Your task to perform on an android device: Check the news Image 0: 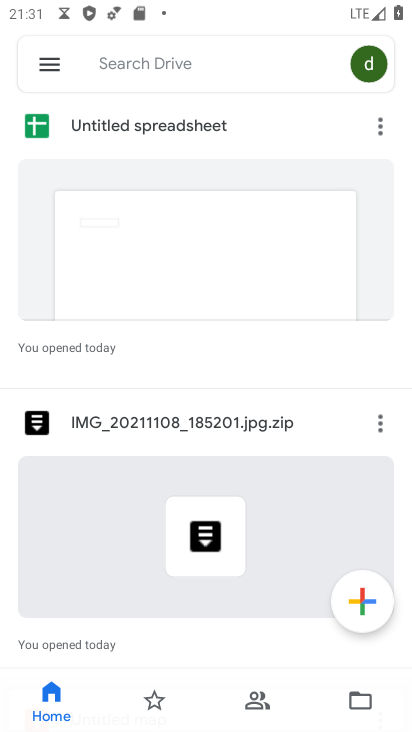
Step 0: press home button
Your task to perform on an android device: Check the news Image 1: 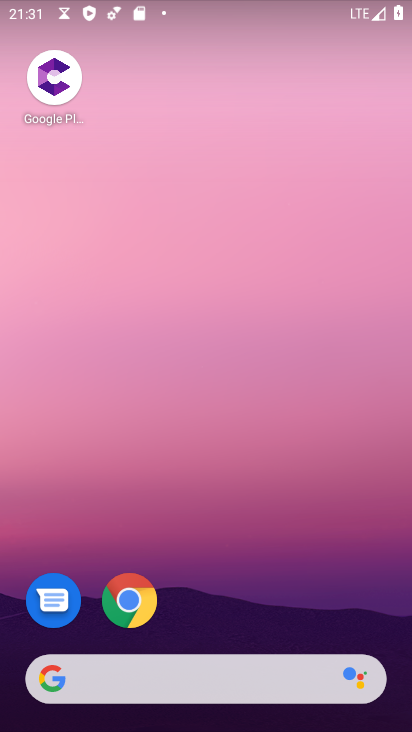
Step 1: click (129, 608)
Your task to perform on an android device: Check the news Image 2: 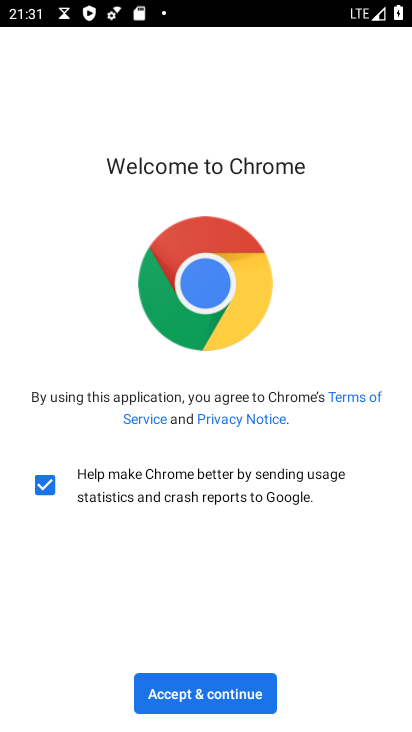
Step 2: click (181, 691)
Your task to perform on an android device: Check the news Image 3: 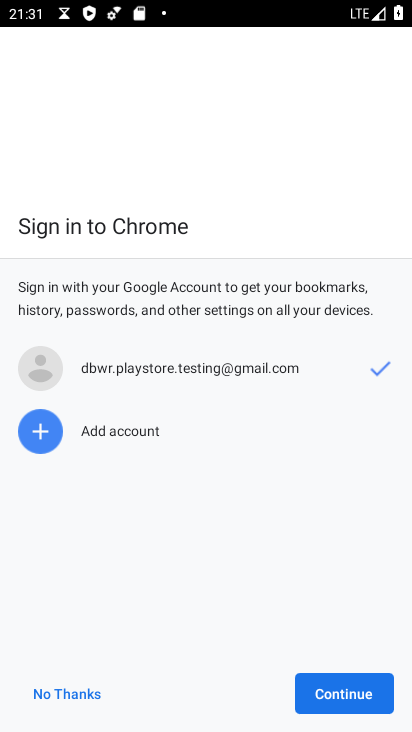
Step 3: click (342, 690)
Your task to perform on an android device: Check the news Image 4: 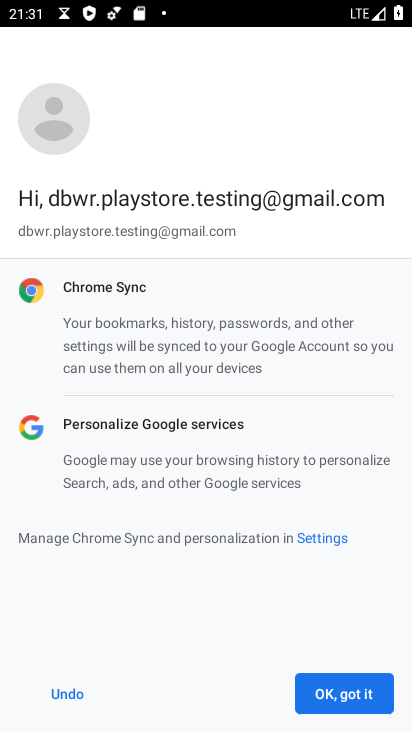
Step 4: click (342, 690)
Your task to perform on an android device: Check the news Image 5: 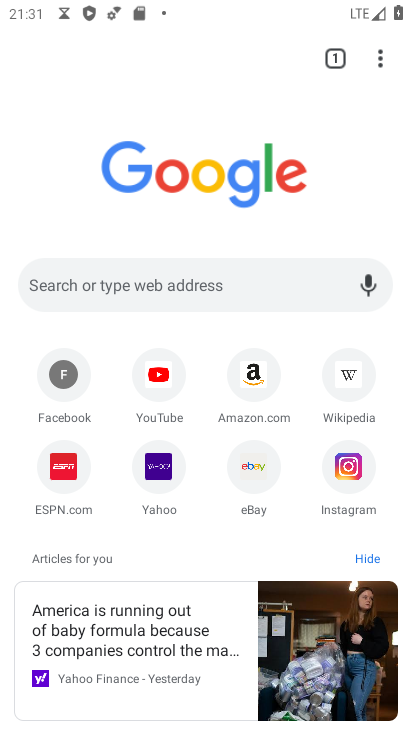
Step 5: click (268, 284)
Your task to perform on an android device: Check the news Image 6: 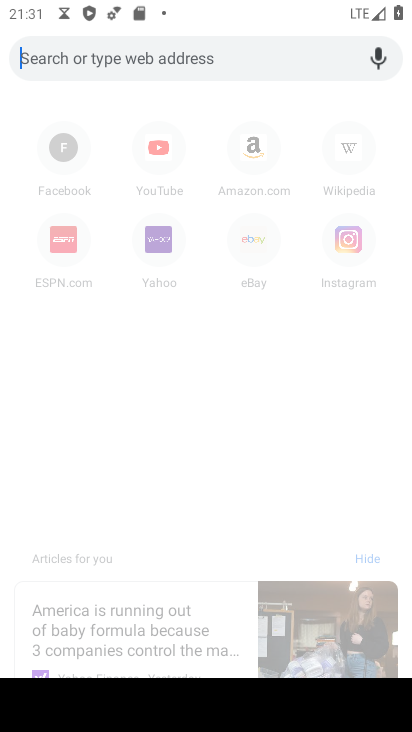
Step 6: type "news"
Your task to perform on an android device: Check the news Image 7: 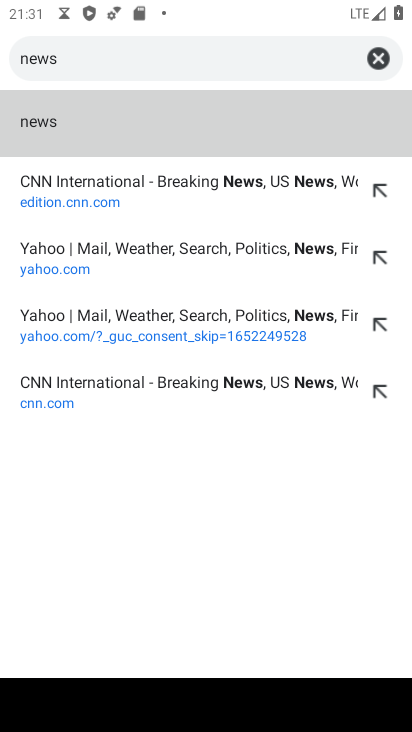
Step 7: click (27, 106)
Your task to perform on an android device: Check the news Image 8: 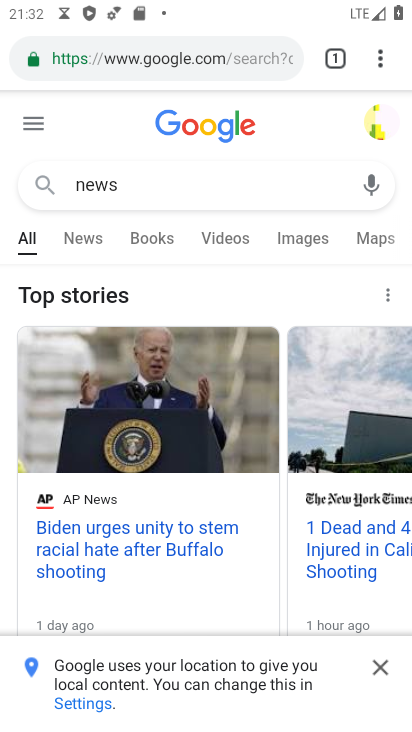
Step 8: task complete